Your task to perform on an android device: show emergency info Image 0: 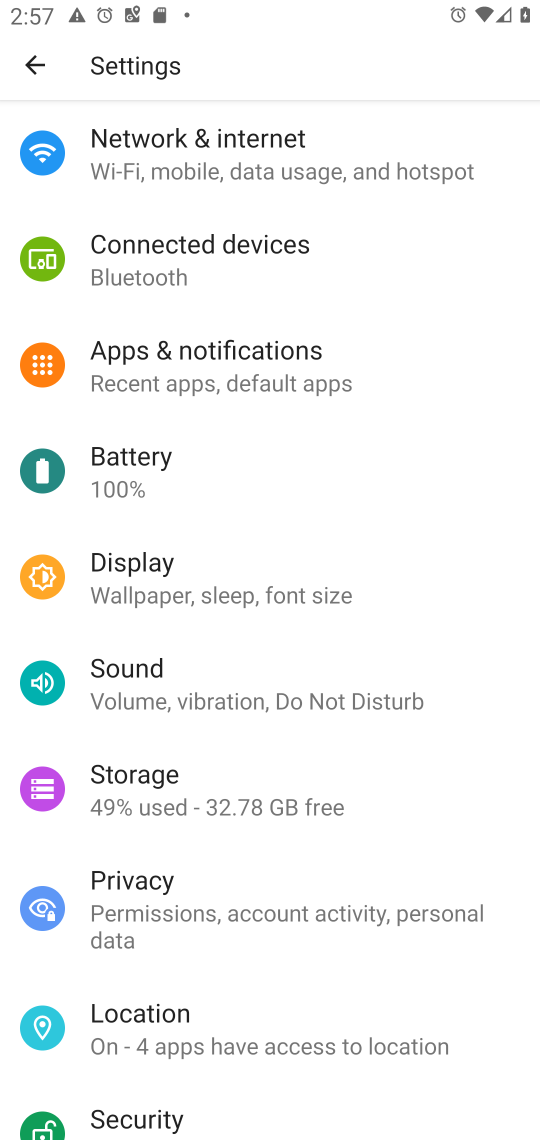
Step 0: drag from (480, 971) to (478, 178)
Your task to perform on an android device: show emergency info Image 1: 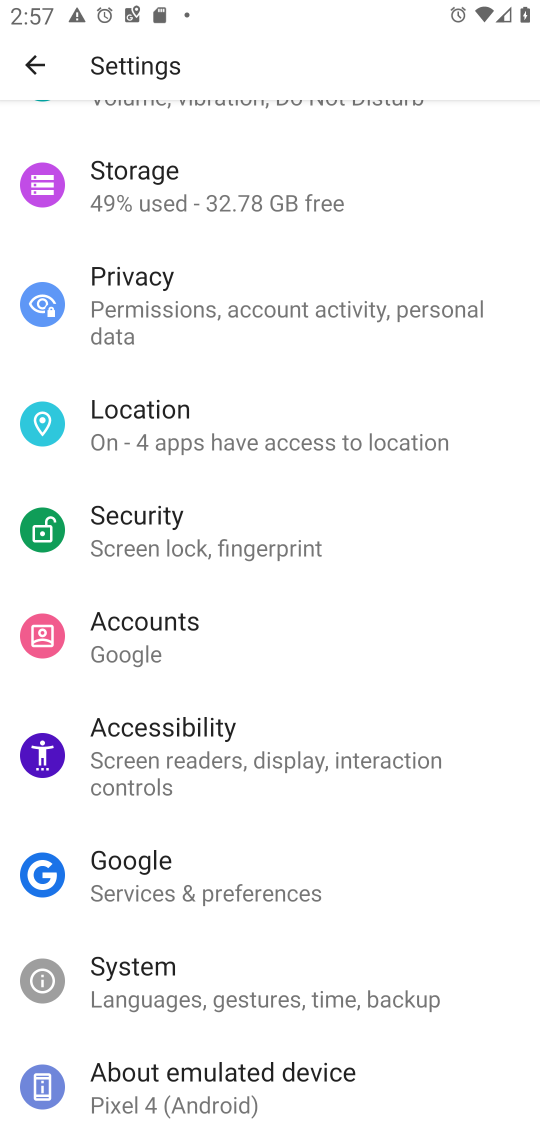
Step 1: drag from (487, 1029) to (477, 825)
Your task to perform on an android device: show emergency info Image 2: 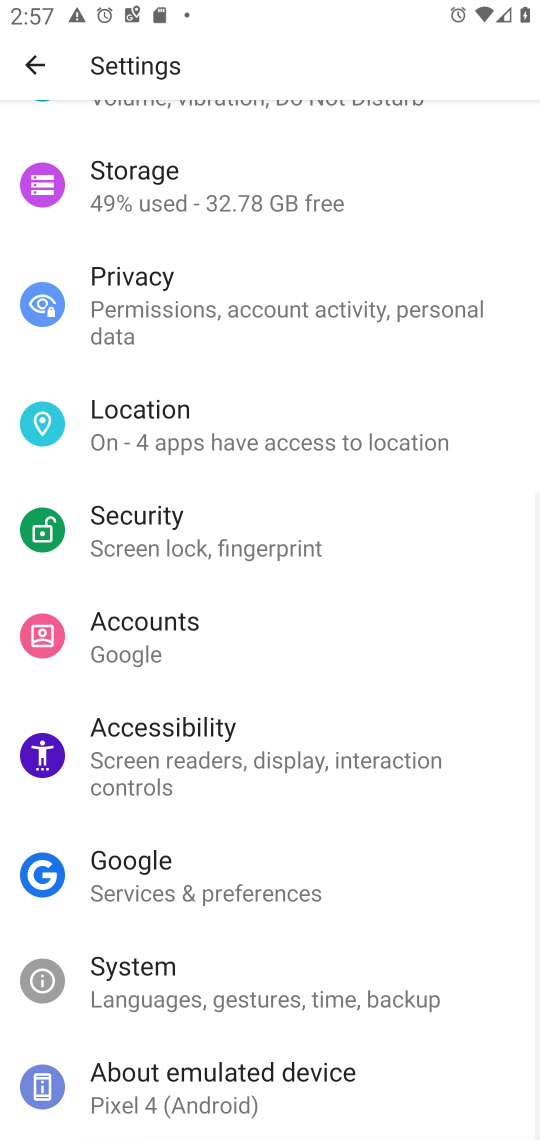
Step 2: click (184, 1084)
Your task to perform on an android device: show emergency info Image 3: 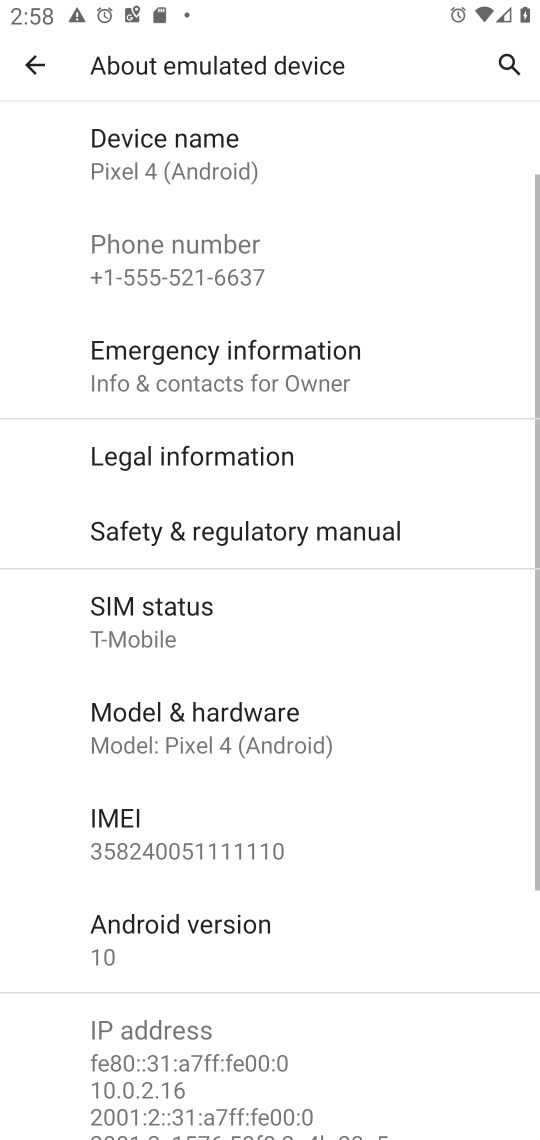
Step 3: click (210, 372)
Your task to perform on an android device: show emergency info Image 4: 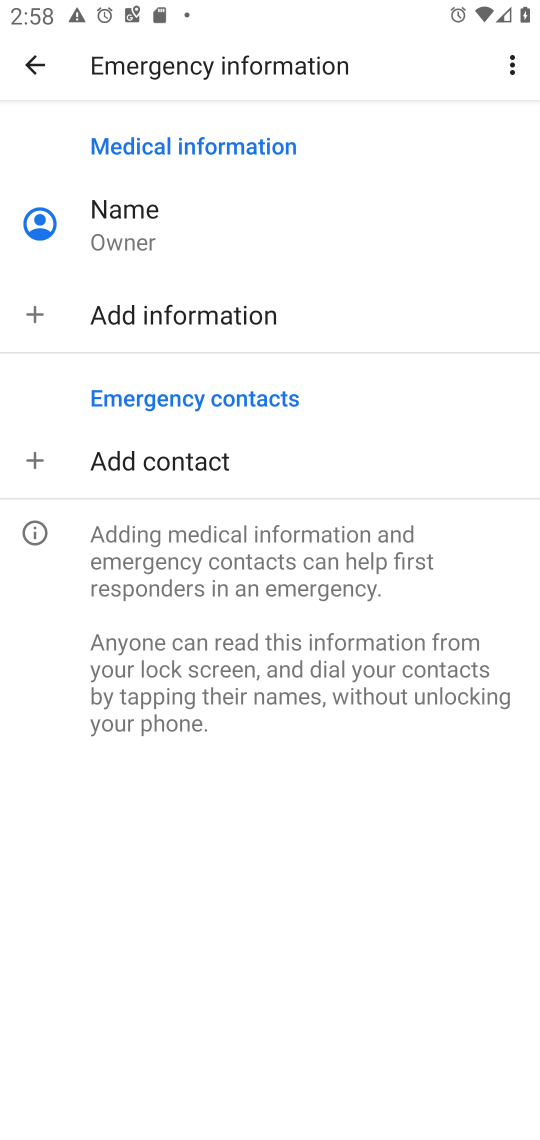
Step 4: task complete